Your task to perform on an android device: turn pop-ups on in chrome Image 0: 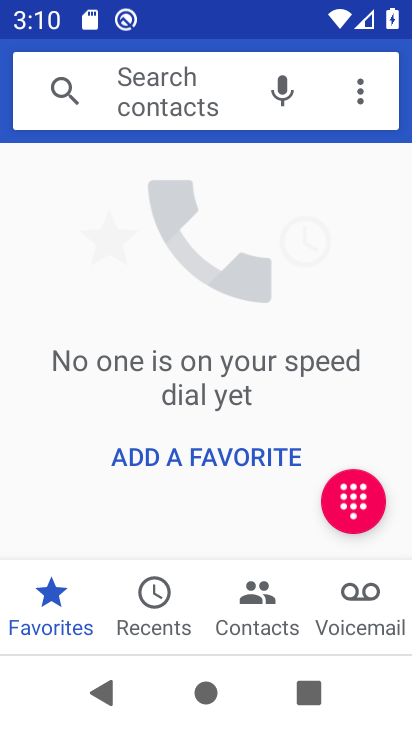
Step 0: press home button
Your task to perform on an android device: turn pop-ups on in chrome Image 1: 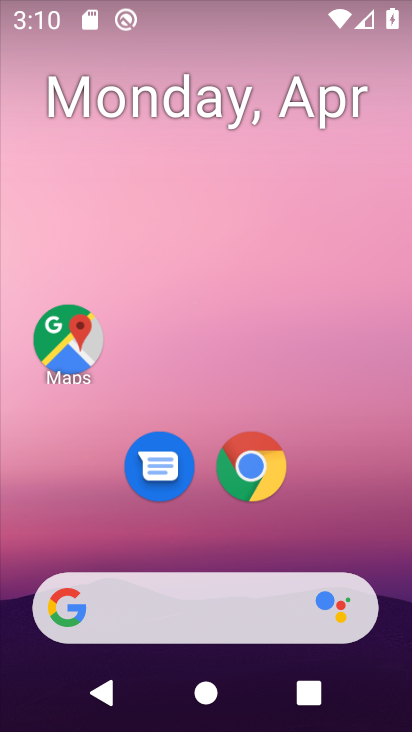
Step 1: click (272, 474)
Your task to perform on an android device: turn pop-ups on in chrome Image 2: 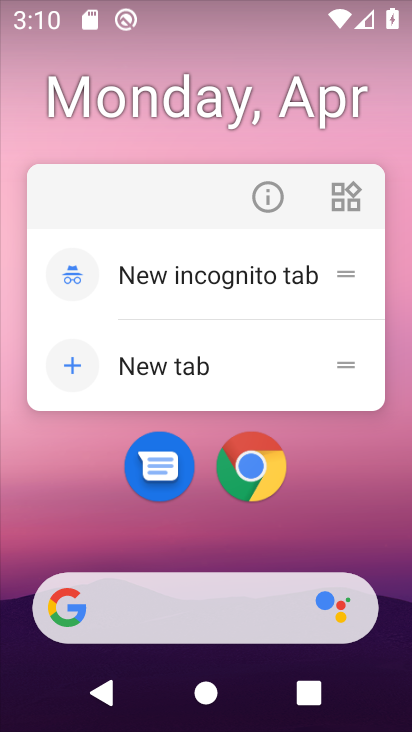
Step 2: click (272, 474)
Your task to perform on an android device: turn pop-ups on in chrome Image 3: 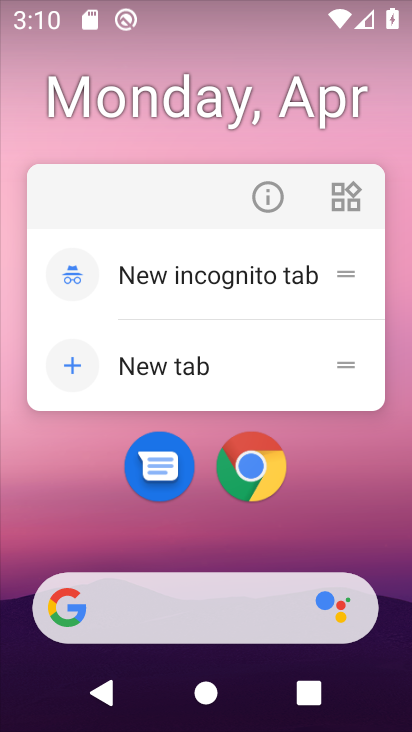
Step 3: click (272, 474)
Your task to perform on an android device: turn pop-ups on in chrome Image 4: 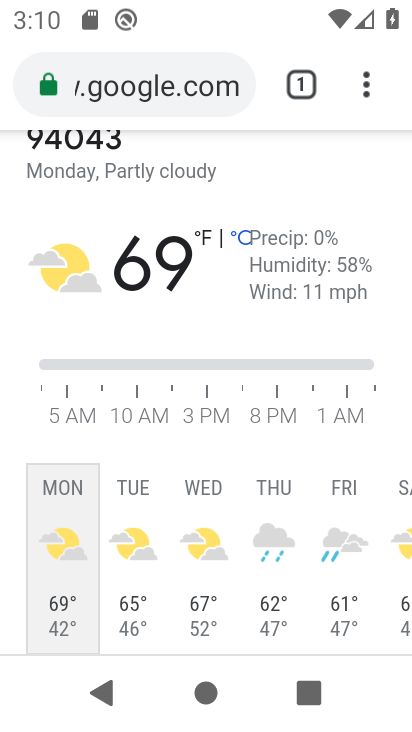
Step 4: drag from (363, 77) to (145, 531)
Your task to perform on an android device: turn pop-ups on in chrome Image 5: 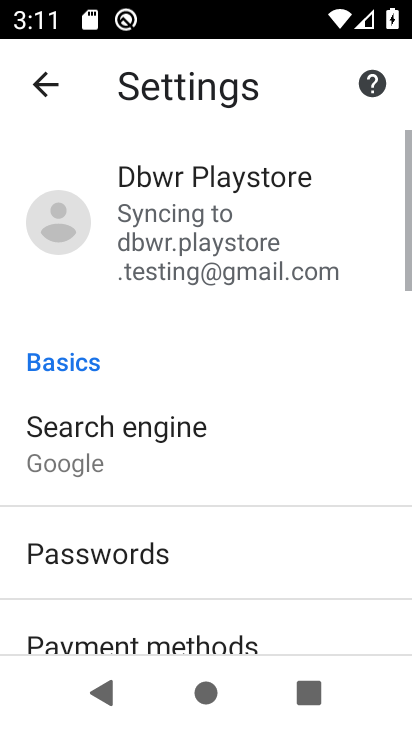
Step 5: drag from (148, 580) to (134, 250)
Your task to perform on an android device: turn pop-ups on in chrome Image 6: 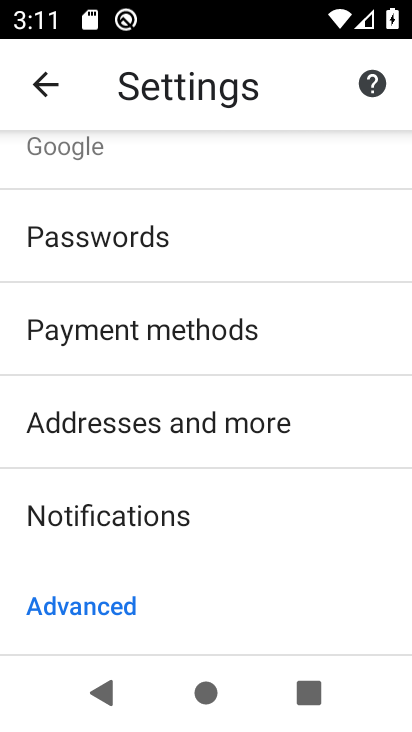
Step 6: drag from (221, 602) to (233, 394)
Your task to perform on an android device: turn pop-ups on in chrome Image 7: 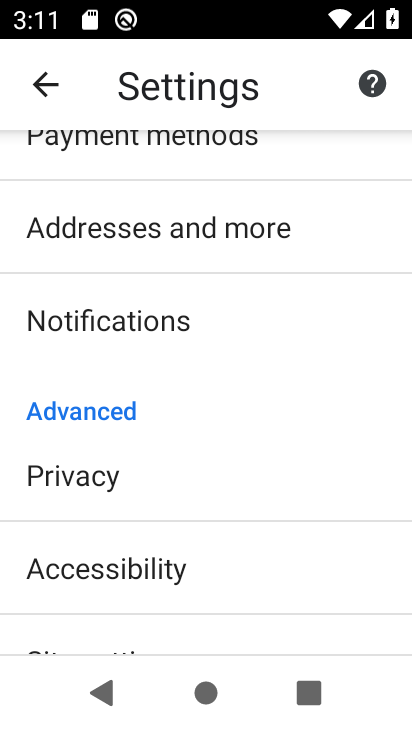
Step 7: drag from (186, 583) to (239, 289)
Your task to perform on an android device: turn pop-ups on in chrome Image 8: 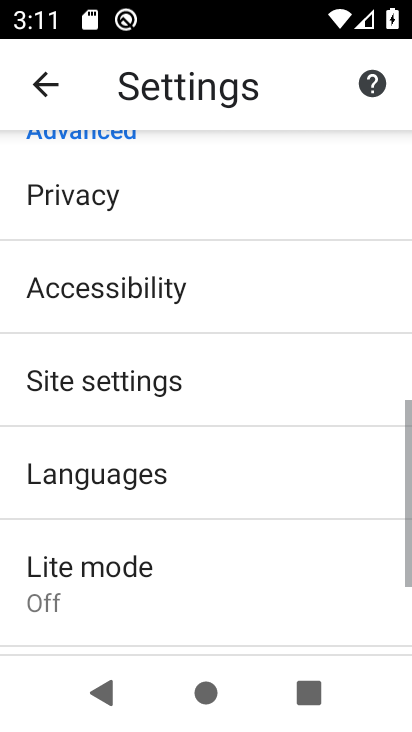
Step 8: click (203, 394)
Your task to perform on an android device: turn pop-ups on in chrome Image 9: 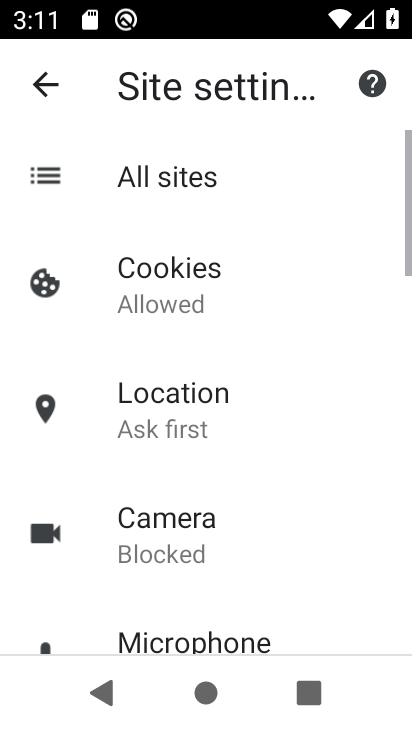
Step 9: drag from (265, 593) to (294, 238)
Your task to perform on an android device: turn pop-ups on in chrome Image 10: 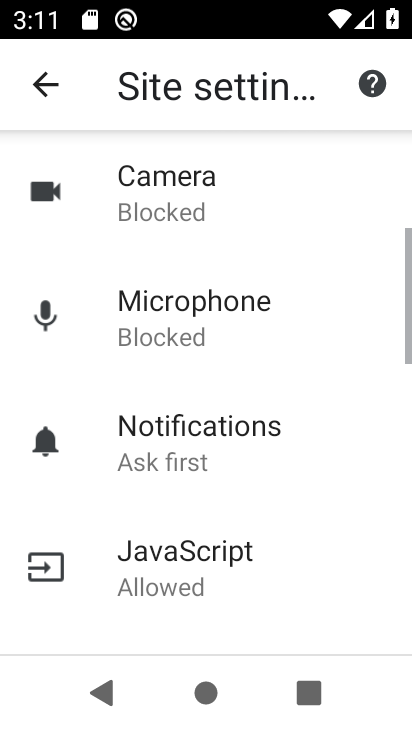
Step 10: drag from (226, 586) to (306, 182)
Your task to perform on an android device: turn pop-ups on in chrome Image 11: 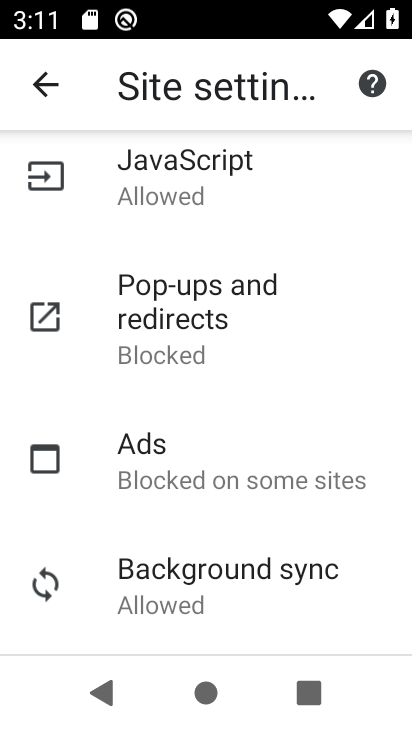
Step 11: click (209, 316)
Your task to perform on an android device: turn pop-ups on in chrome Image 12: 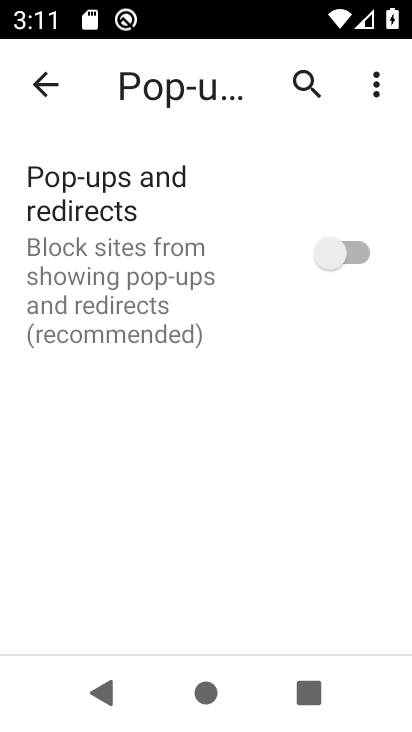
Step 12: click (346, 242)
Your task to perform on an android device: turn pop-ups on in chrome Image 13: 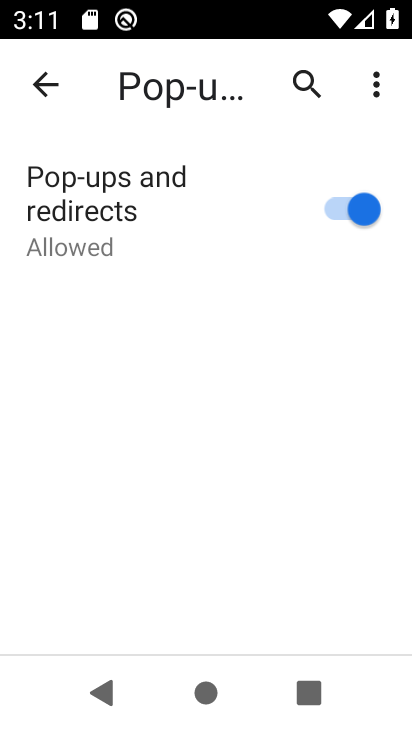
Step 13: task complete